Your task to perform on an android device: Go to location settings Image 0: 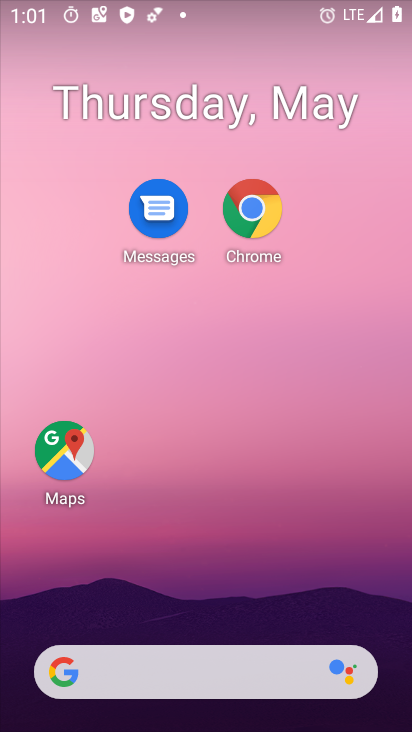
Step 0: drag from (219, 604) to (265, 19)
Your task to perform on an android device: Go to location settings Image 1: 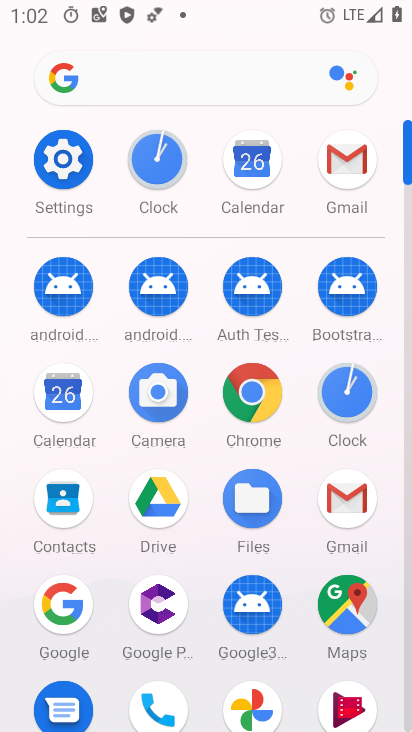
Step 1: click (56, 153)
Your task to perform on an android device: Go to location settings Image 2: 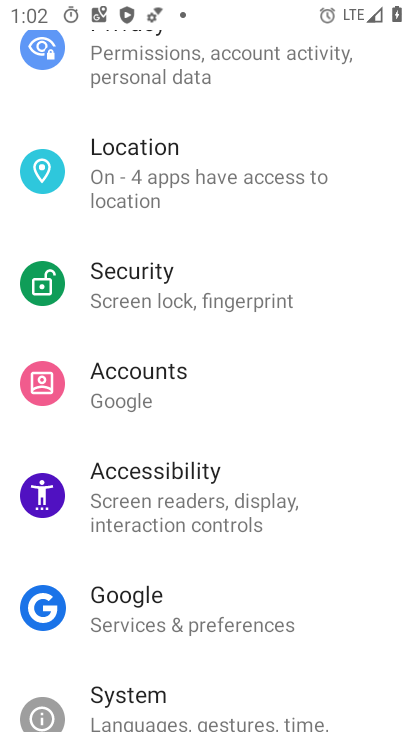
Step 2: click (117, 158)
Your task to perform on an android device: Go to location settings Image 3: 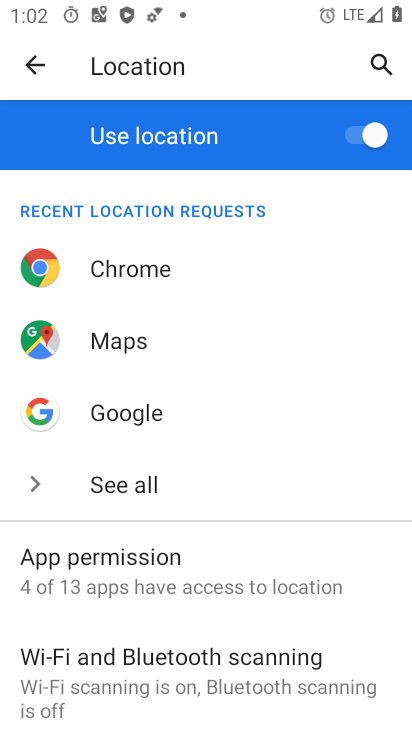
Step 3: task complete